Your task to perform on an android device: What's the weather today? Image 0: 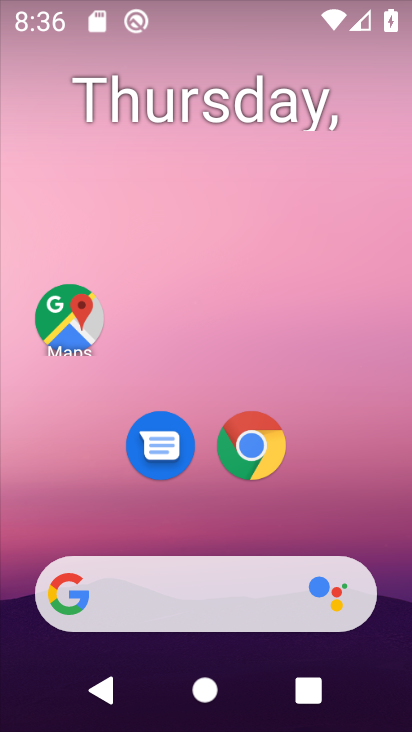
Step 0: drag from (316, 492) to (166, 81)
Your task to perform on an android device: What's the weather today? Image 1: 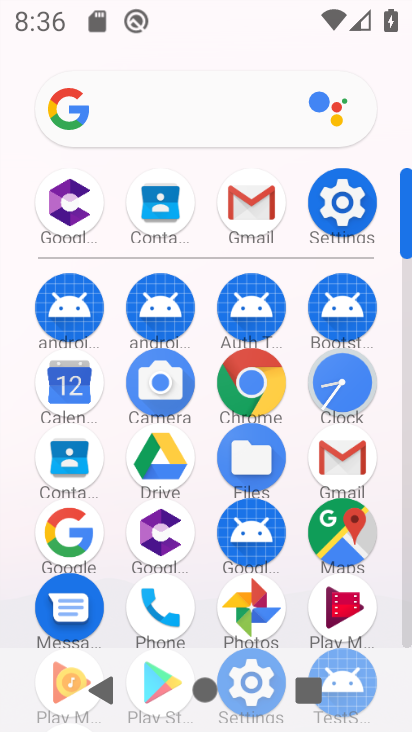
Step 1: click (257, 389)
Your task to perform on an android device: What's the weather today? Image 2: 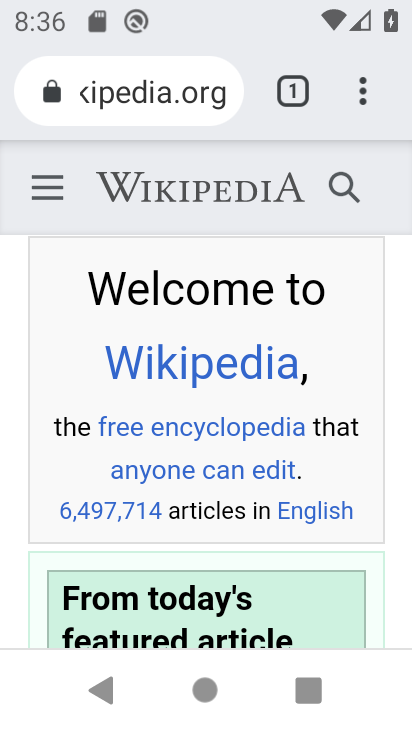
Step 2: click (290, 91)
Your task to perform on an android device: What's the weather today? Image 3: 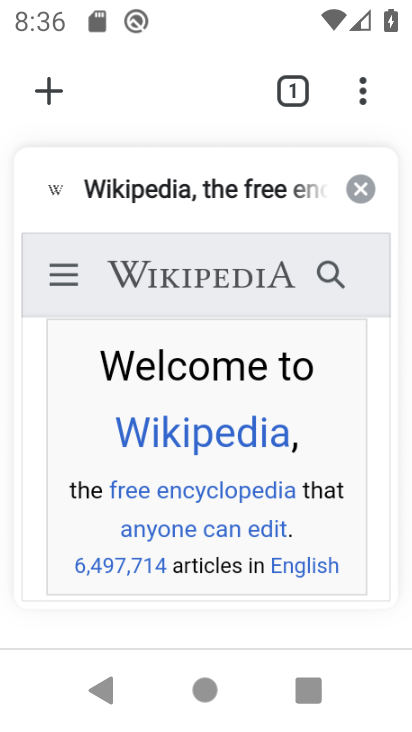
Step 3: click (51, 91)
Your task to perform on an android device: What's the weather today? Image 4: 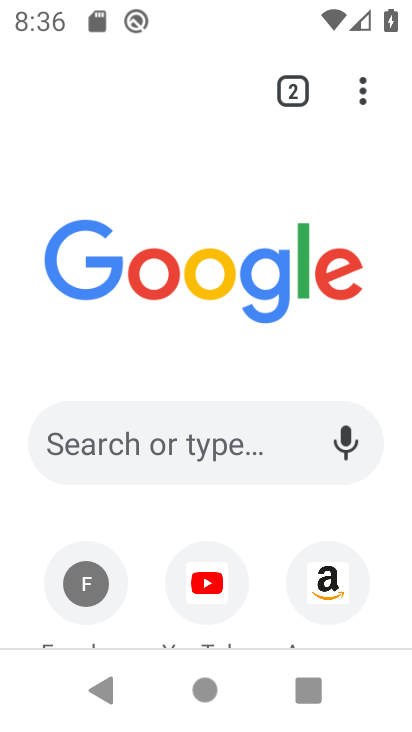
Step 4: click (129, 435)
Your task to perform on an android device: What's the weather today? Image 5: 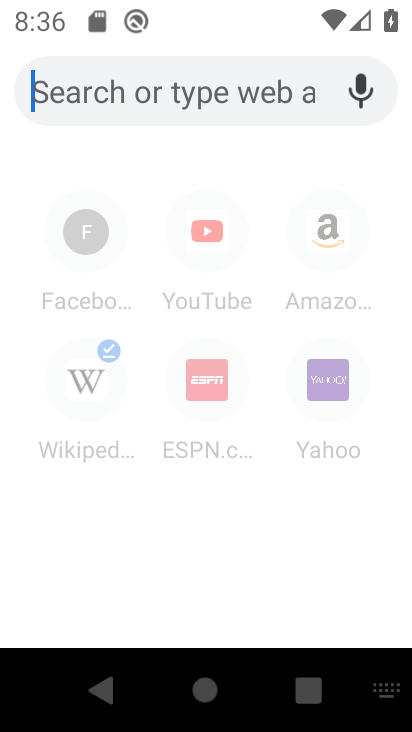
Step 5: type "what's the weather today?"
Your task to perform on an android device: What's the weather today? Image 6: 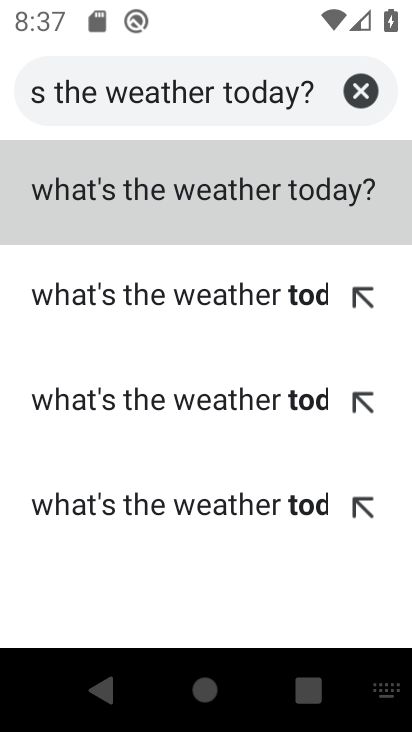
Step 6: click (275, 205)
Your task to perform on an android device: What's the weather today? Image 7: 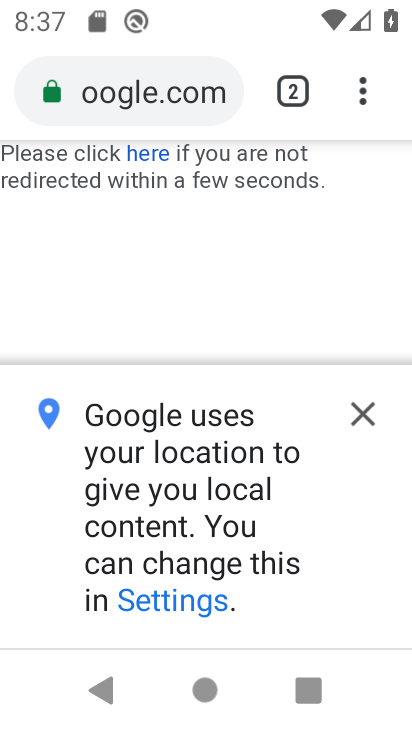
Step 7: click (362, 407)
Your task to perform on an android device: What's the weather today? Image 8: 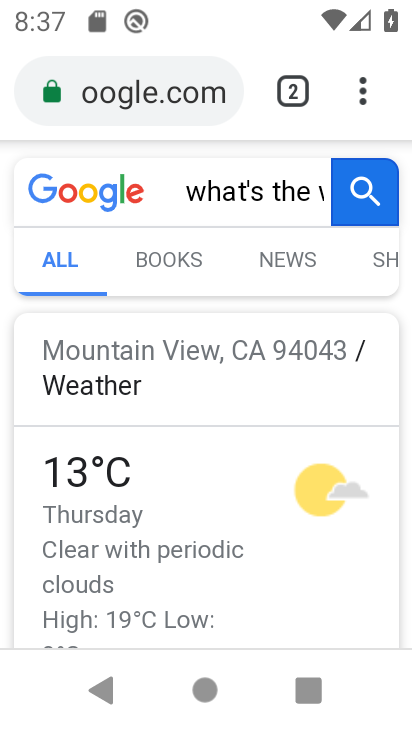
Step 8: task complete